Your task to perform on an android device: Go to Wikipedia Image 0: 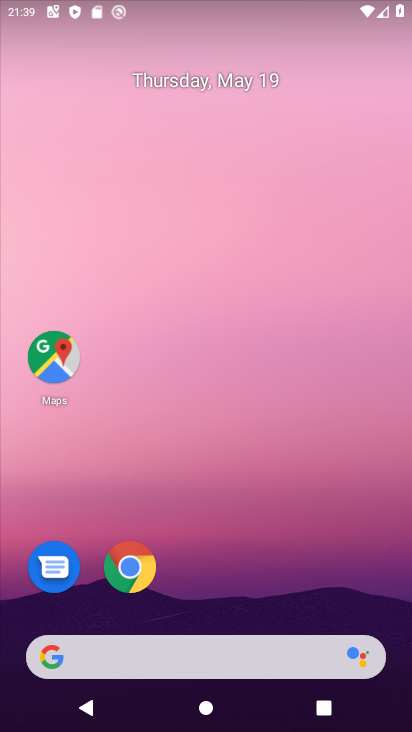
Step 0: drag from (241, 618) to (236, 91)
Your task to perform on an android device: Go to Wikipedia Image 1: 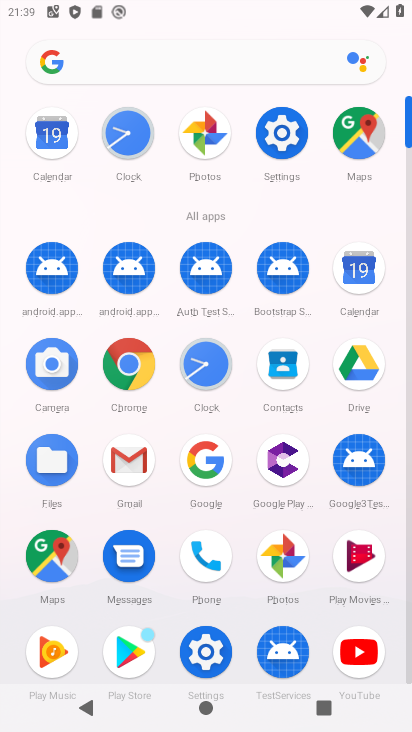
Step 1: click (125, 361)
Your task to perform on an android device: Go to Wikipedia Image 2: 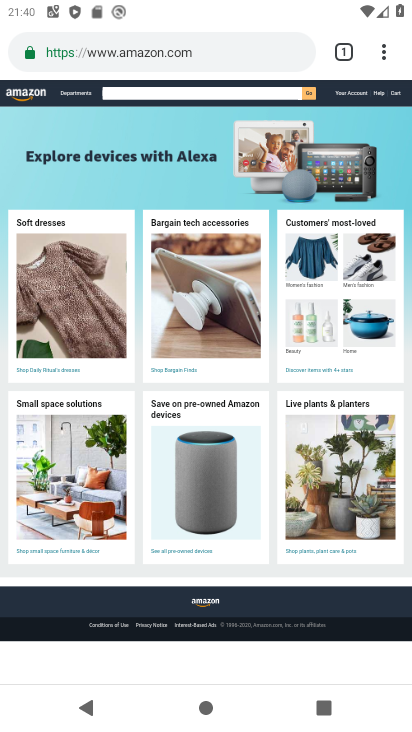
Step 2: click (336, 48)
Your task to perform on an android device: Go to Wikipedia Image 3: 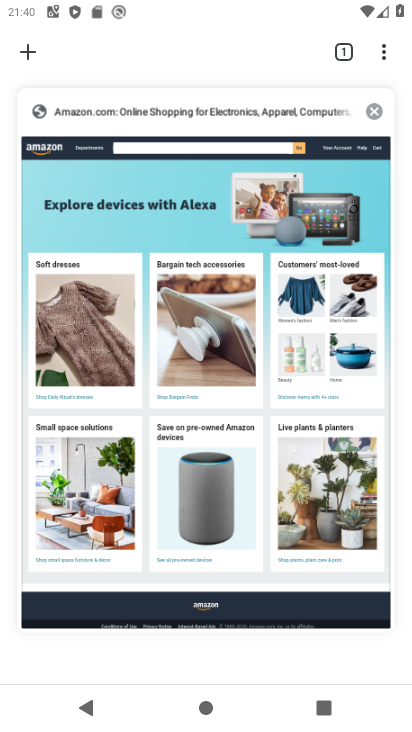
Step 3: click (374, 112)
Your task to perform on an android device: Go to Wikipedia Image 4: 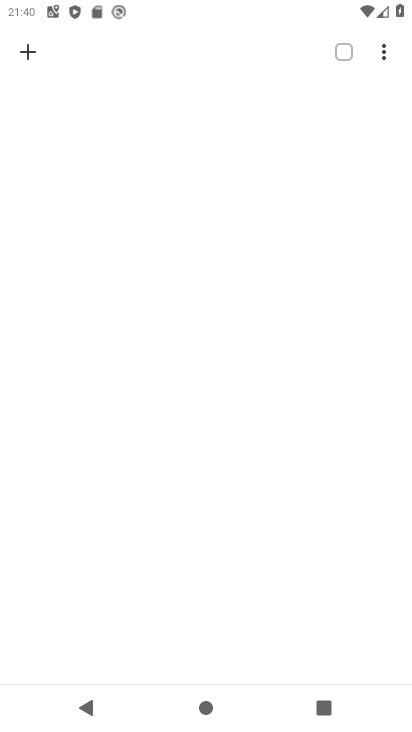
Step 4: click (27, 38)
Your task to perform on an android device: Go to Wikipedia Image 5: 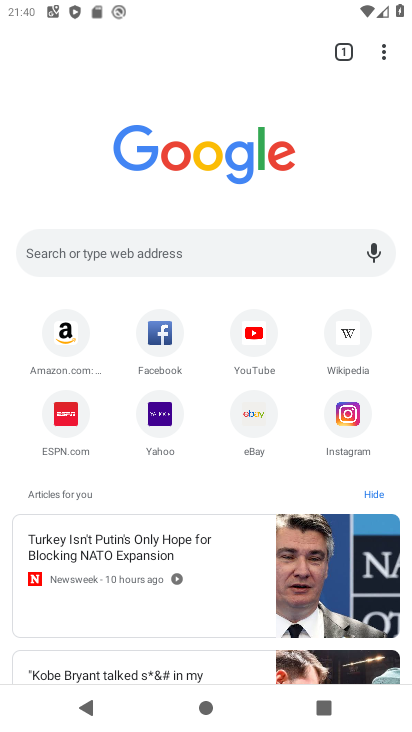
Step 5: click (347, 331)
Your task to perform on an android device: Go to Wikipedia Image 6: 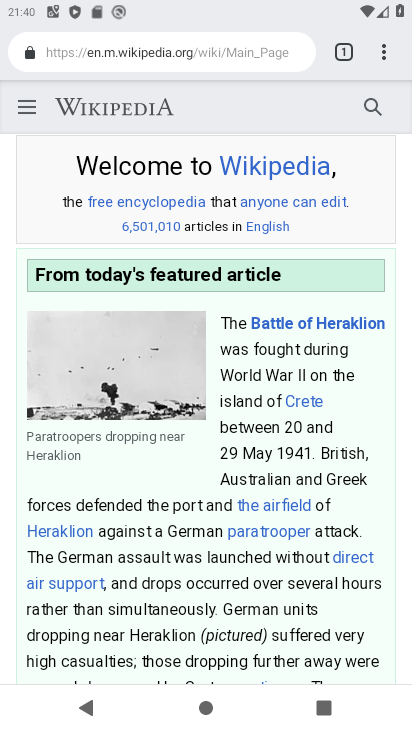
Step 6: task complete